Your task to perform on an android device: toggle sleep mode Image 0: 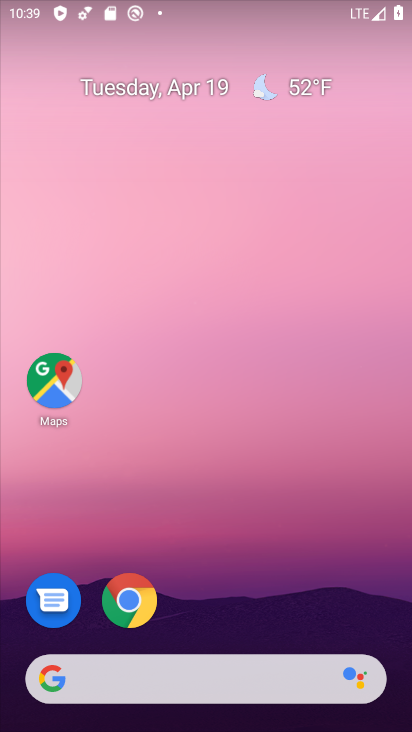
Step 0: drag from (296, 348) to (273, 158)
Your task to perform on an android device: toggle sleep mode Image 1: 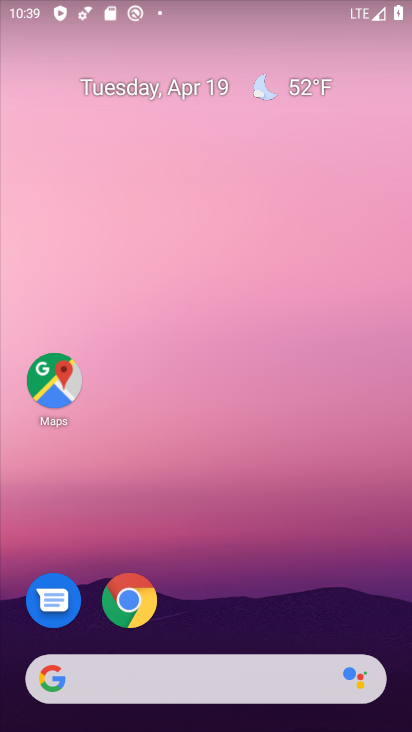
Step 1: drag from (307, 608) to (249, 141)
Your task to perform on an android device: toggle sleep mode Image 2: 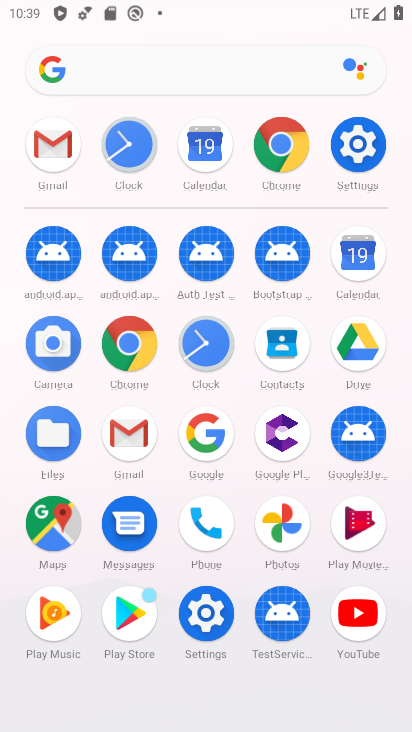
Step 2: click (370, 144)
Your task to perform on an android device: toggle sleep mode Image 3: 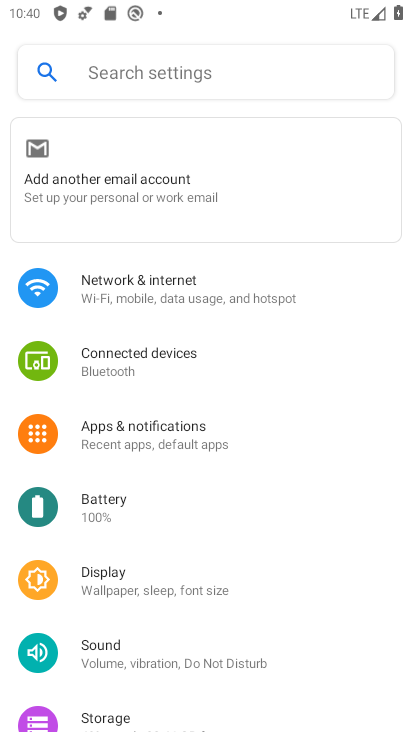
Step 3: task complete